Your task to perform on an android device: Show me recent news Image 0: 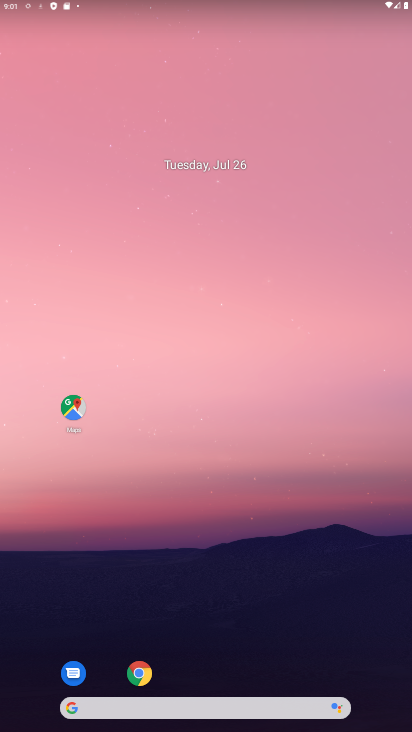
Step 0: click (97, 705)
Your task to perform on an android device: Show me recent news Image 1: 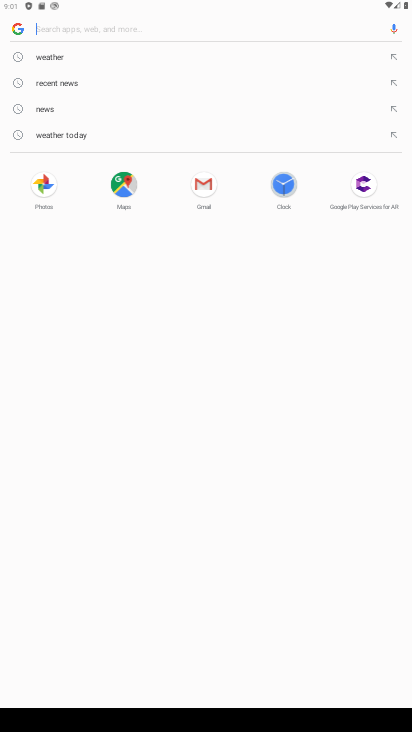
Step 1: click (45, 83)
Your task to perform on an android device: Show me recent news Image 2: 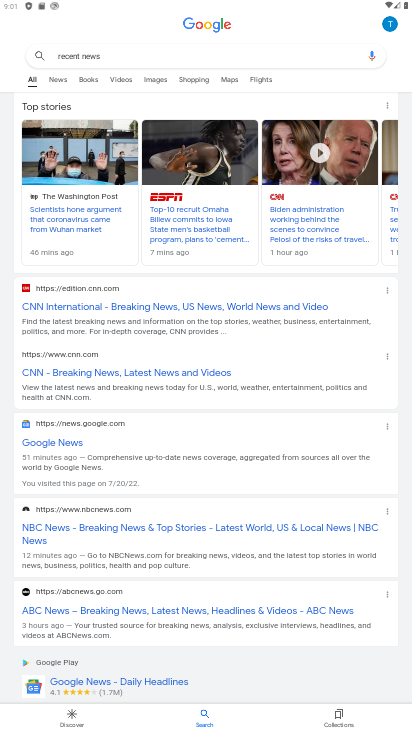
Step 2: click (57, 84)
Your task to perform on an android device: Show me recent news Image 3: 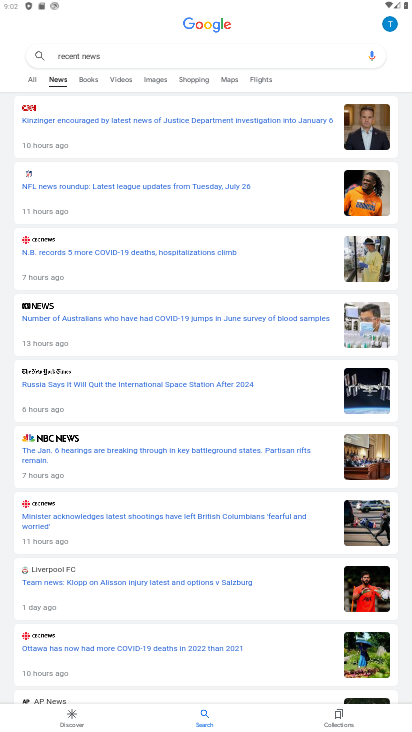
Step 3: drag from (93, 567) to (113, 363)
Your task to perform on an android device: Show me recent news Image 4: 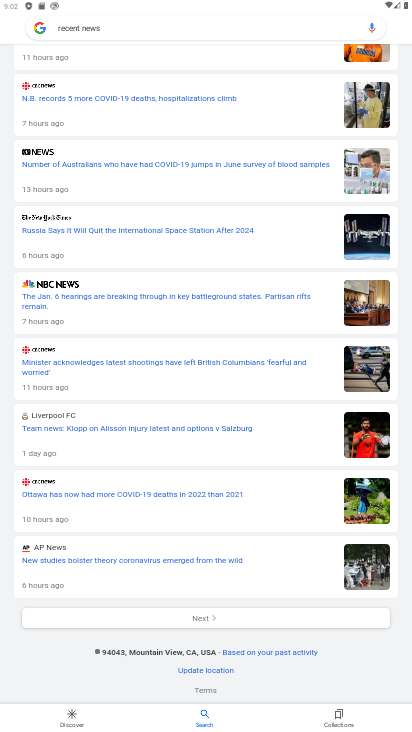
Step 4: drag from (107, 500) to (109, 356)
Your task to perform on an android device: Show me recent news Image 5: 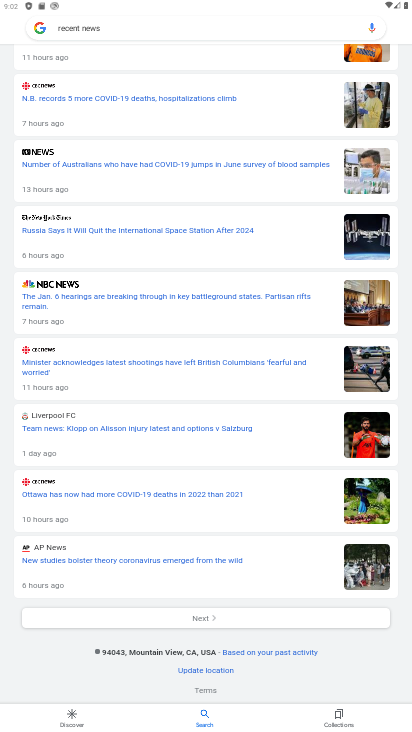
Step 5: click (53, 582)
Your task to perform on an android device: Show me recent news Image 6: 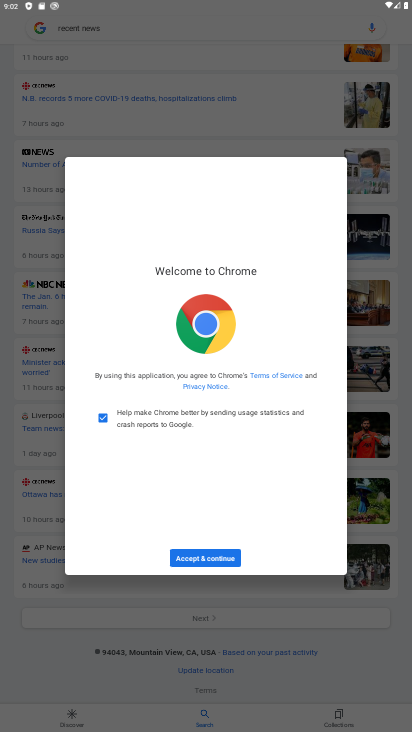
Step 6: click (194, 561)
Your task to perform on an android device: Show me recent news Image 7: 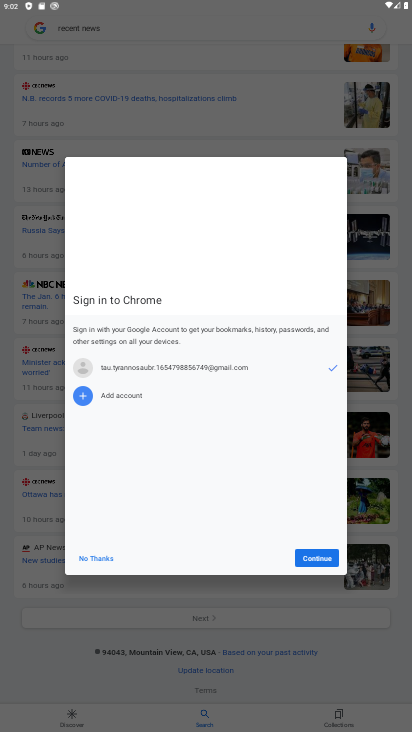
Step 7: click (85, 557)
Your task to perform on an android device: Show me recent news Image 8: 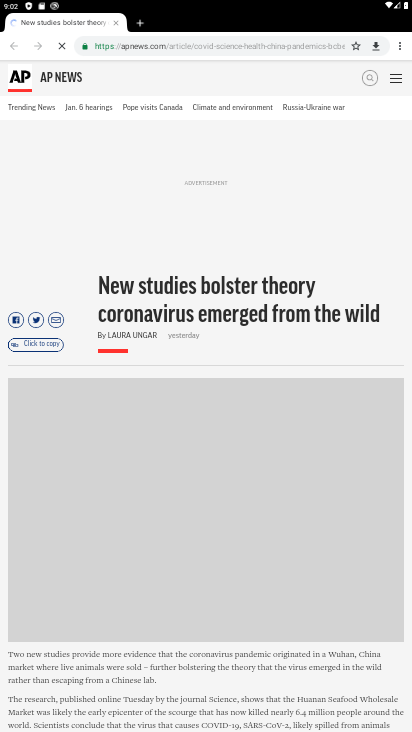
Step 8: task complete